Your task to perform on an android device: turn notification dots off Image 0: 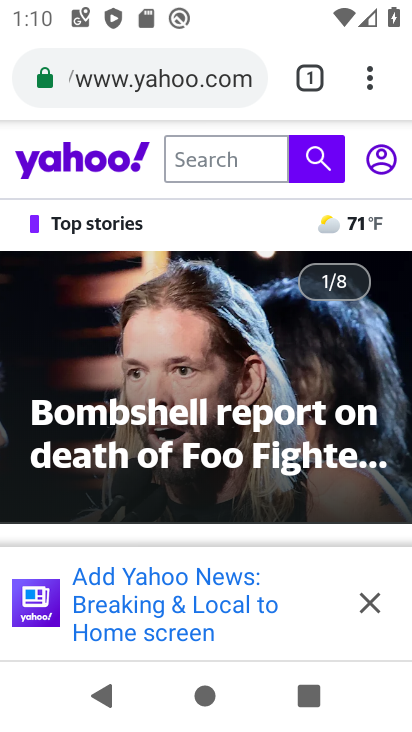
Step 0: press home button
Your task to perform on an android device: turn notification dots off Image 1: 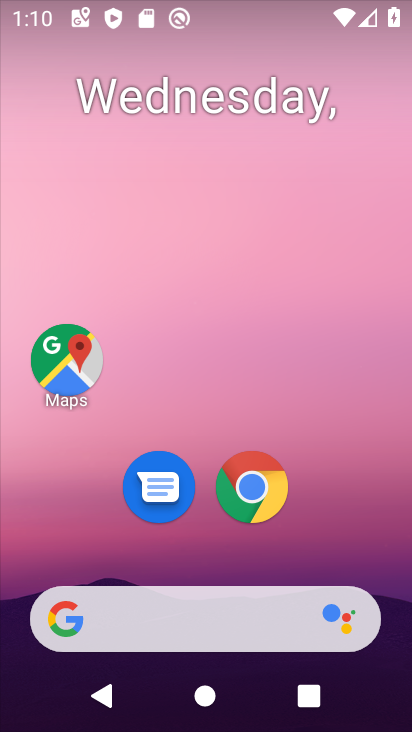
Step 1: drag from (230, 550) to (258, 41)
Your task to perform on an android device: turn notification dots off Image 2: 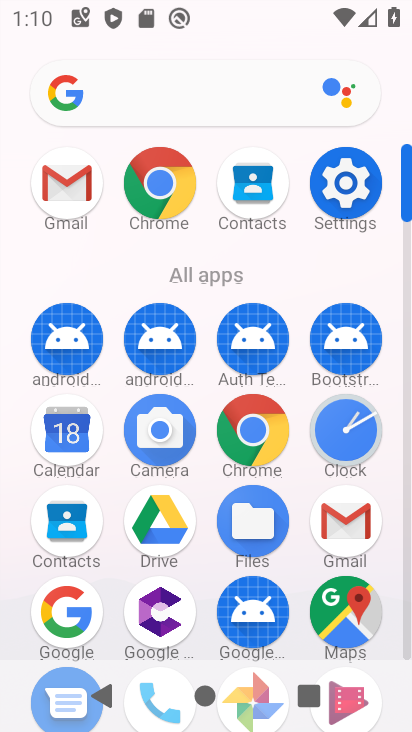
Step 2: click (347, 209)
Your task to perform on an android device: turn notification dots off Image 3: 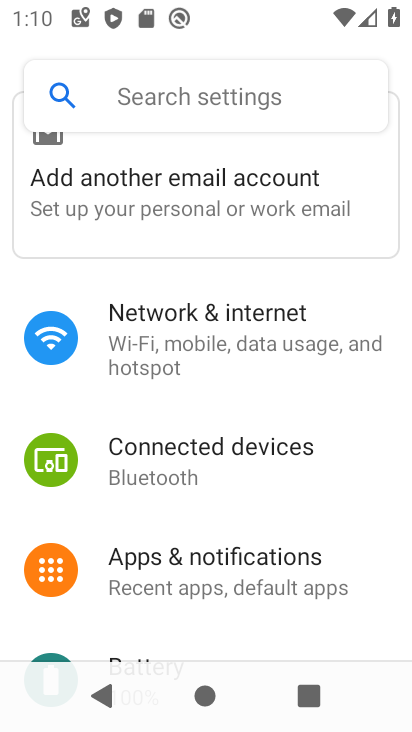
Step 3: click (208, 578)
Your task to perform on an android device: turn notification dots off Image 4: 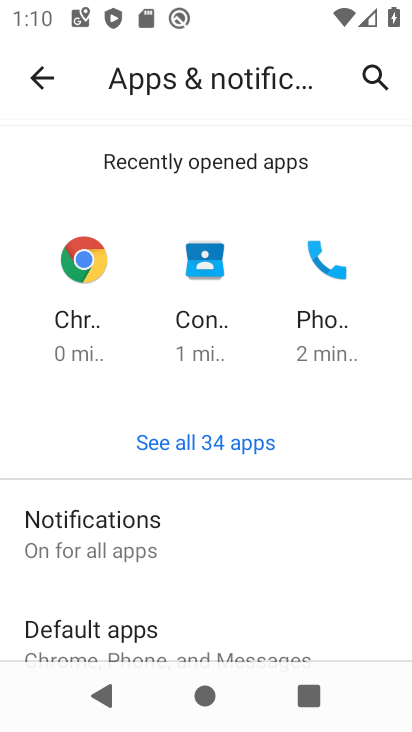
Step 4: drag from (190, 565) to (187, 324)
Your task to perform on an android device: turn notification dots off Image 5: 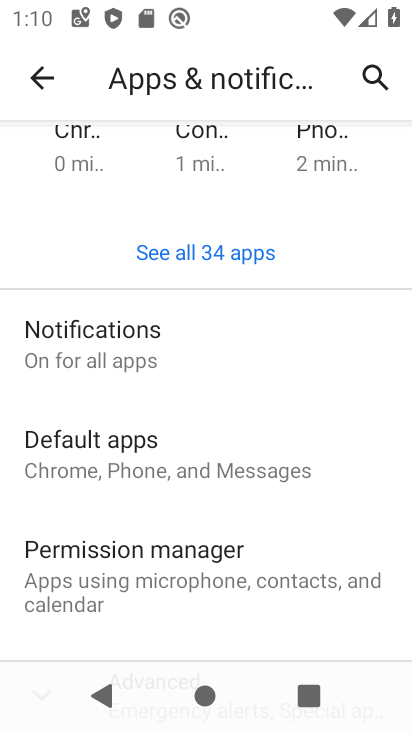
Step 5: click (125, 380)
Your task to perform on an android device: turn notification dots off Image 6: 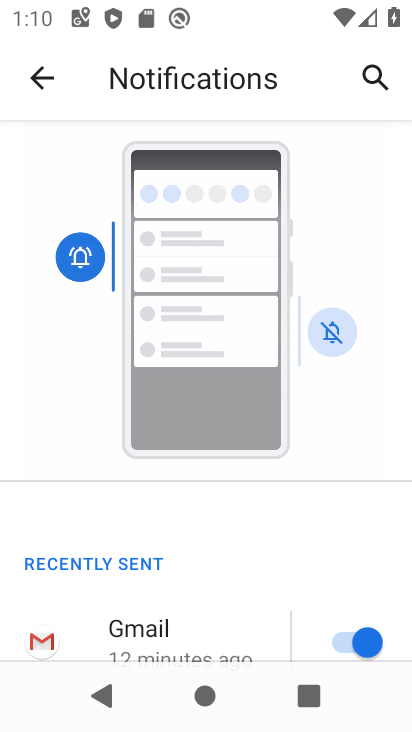
Step 6: drag from (181, 663) to (221, 383)
Your task to perform on an android device: turn notification dots off Image 7: 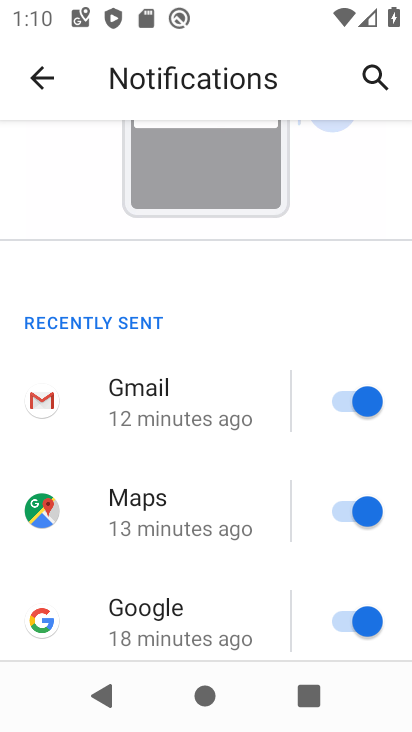
Step 7: drag from (239, 601) to (282, 227)
Your task to perform on an android device: turn notification dots off Image 8: 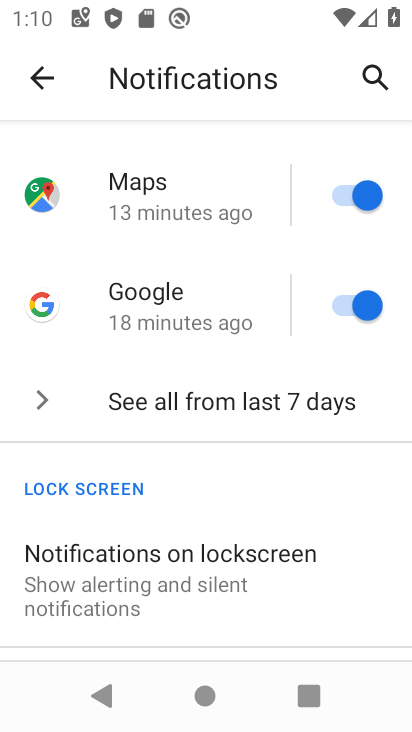
Step 8: drag from (205, 556) to (213, 315)
Your task to perform on an android device: turn notification dots off Image 9: 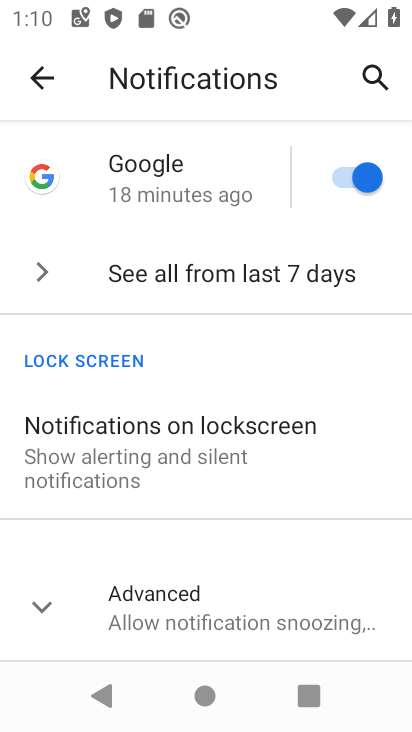
Step 9: click (145, 610)
Your task to perform on an android device: turn notification dots off Image 10: 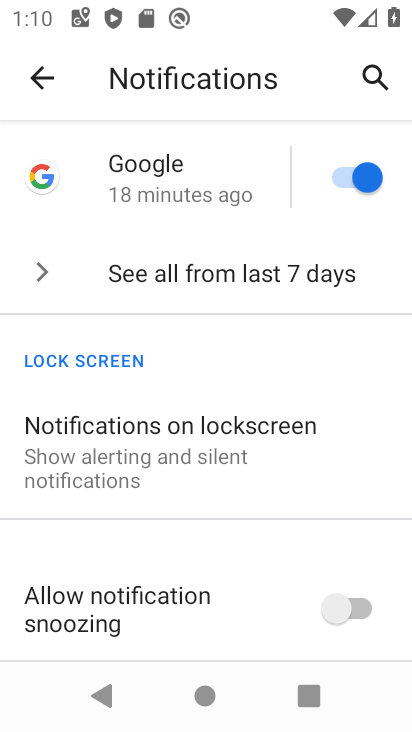
Step 10: task complete